Your task to perform on an android device: toggle sleep mode Image 0: 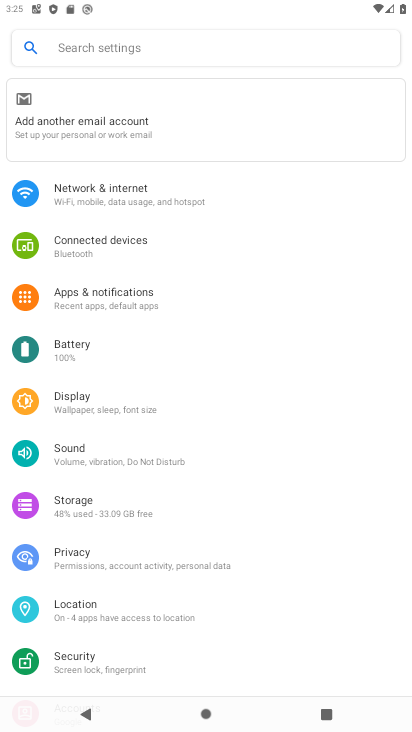
Step 0: click (103, 405)
Your task to perform on an android device: toggle sleep mode Image 1: 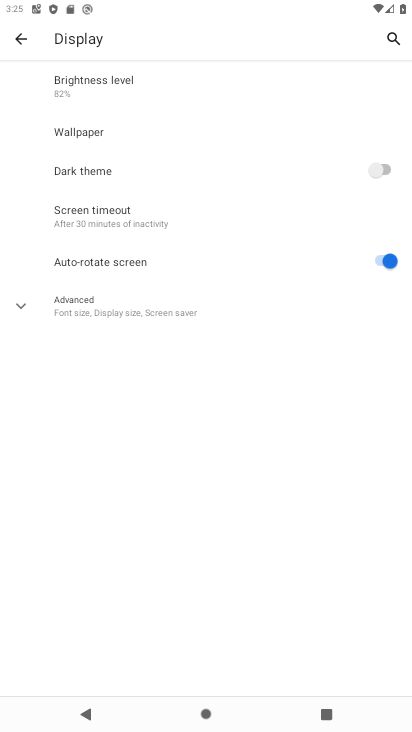
Step 1: click (85, 301)
Your task to perform on an android device: toggle sleep mode Image 2: 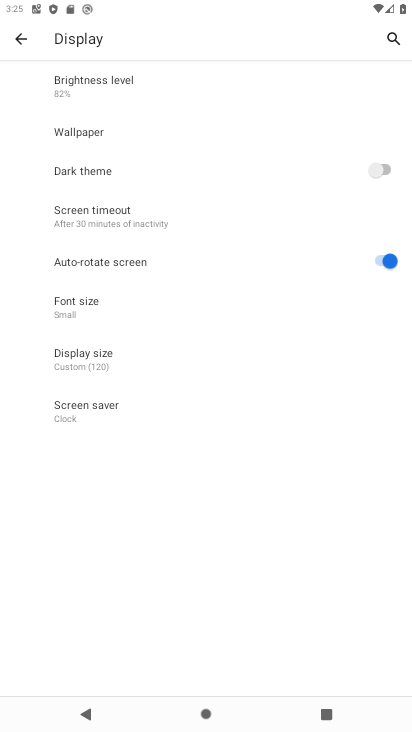
Step 2: click (86, 215)
Your task to perform on an android device: toggle sleep mode Image 3: 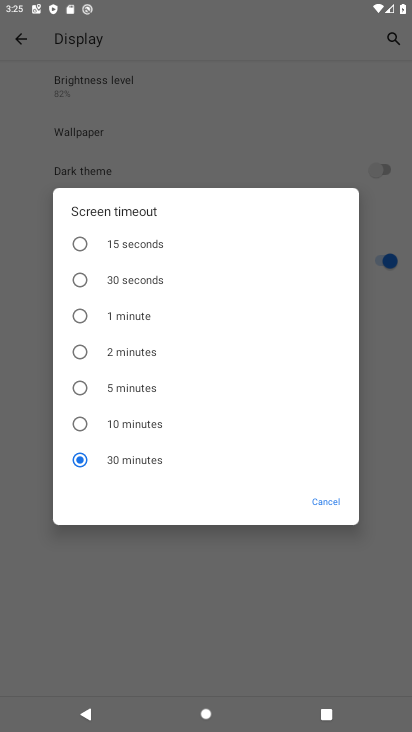
Step 3: click (135, 244)
Your task to perform on an android device: toggle sleep mode Image 4: 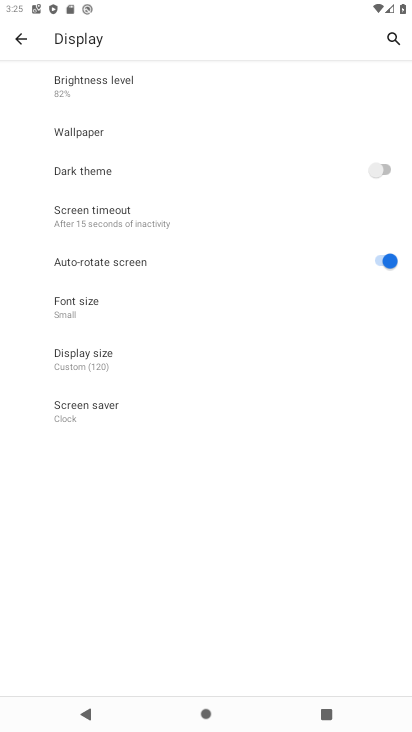
Step 4: task complete